Your task to perform on an android device: find snoozed emails in the gmail app Image 0: 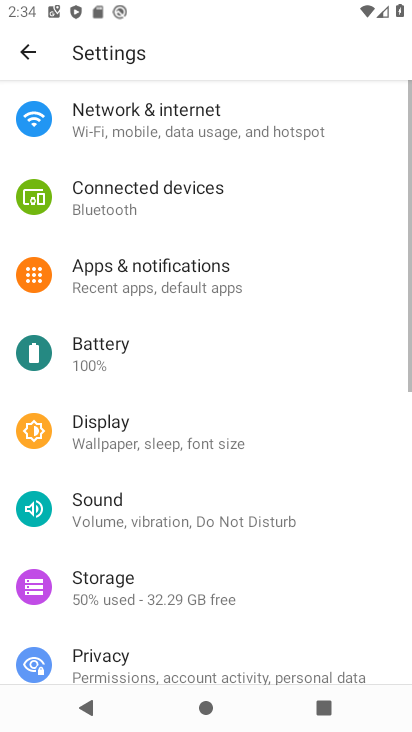
Step 0: press home button
Your task to perform on an android device: find snoozed emails in the gmail app Image 1: 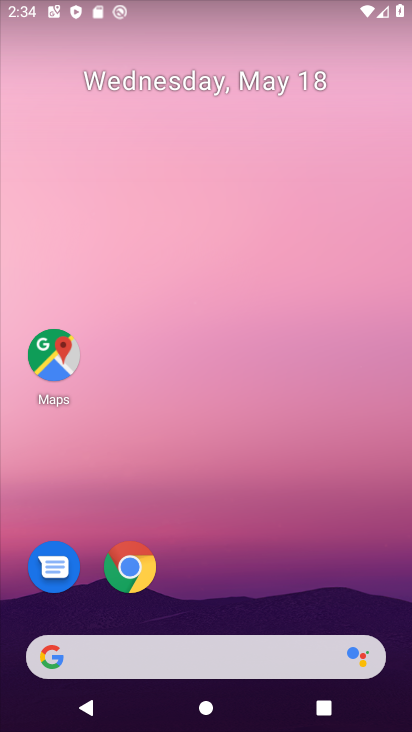
Step 1: drag from (217, 625) to (243, 201)
Your task to perform on an android device: find snoozed emails in the gmail app Image 2: 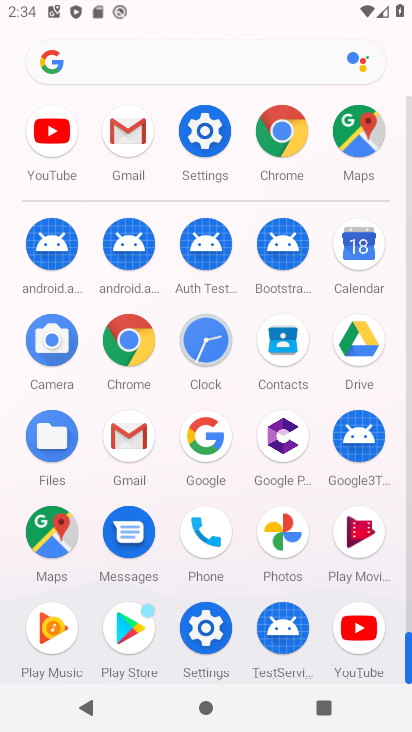
Step 2: click (129, 127)
Your task to perform on an android device: find snoozed emails in the gmail app Image 3: 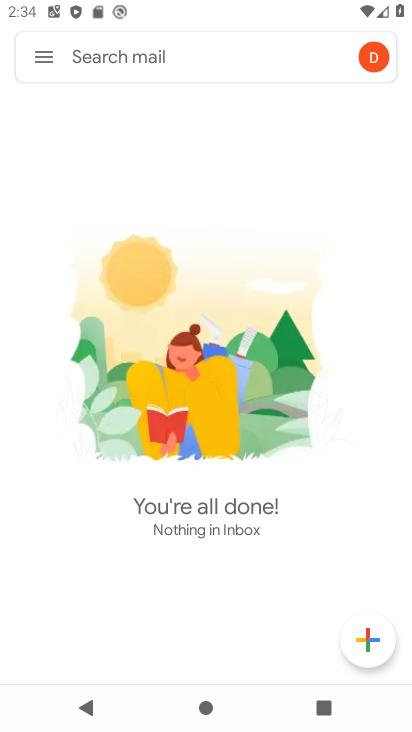
Step 3: click (40, 45)
Your task to perform on an android device: find snoozed emails in the gmail app Image 4: 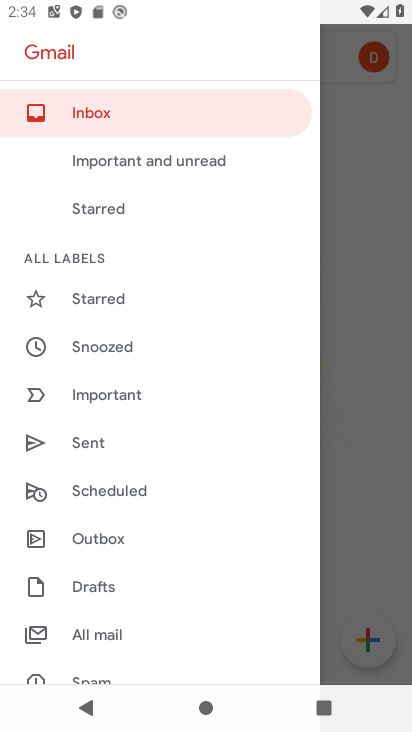
Step 4: drag from (137, 595) to (179, 161)
Your task to perform on an android device: find snoozed emails in the gmail app Image 5: 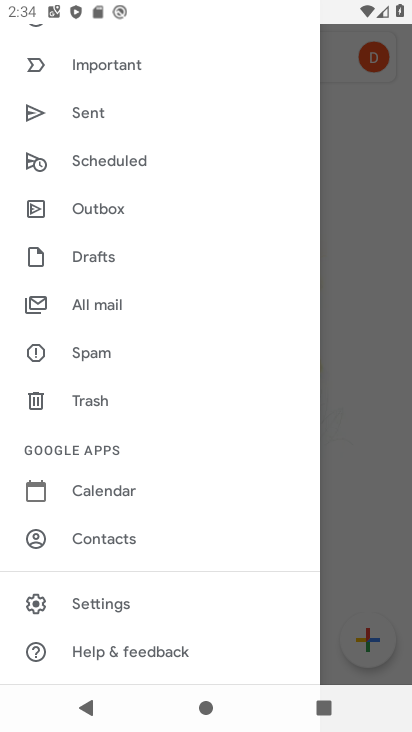
Step 5: drag from (119, 177) to (113, 463)
Your task to perform on an android device: find snoozed emails in the gmail app Image 6: 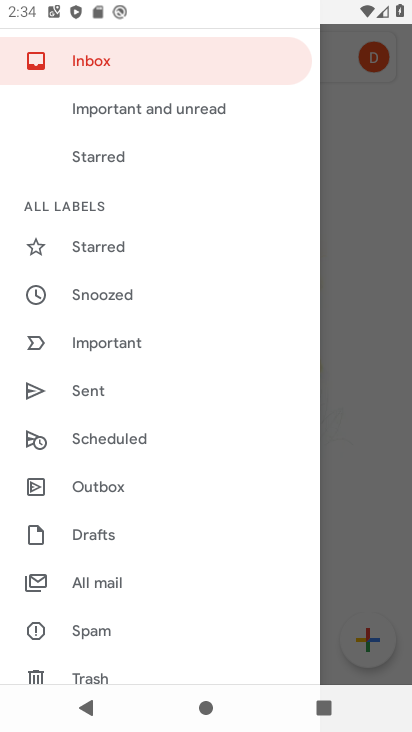
Step 6: click (130, 301)
Your task to perform on an android device: find snoozed emails in the gmail app Image 7: 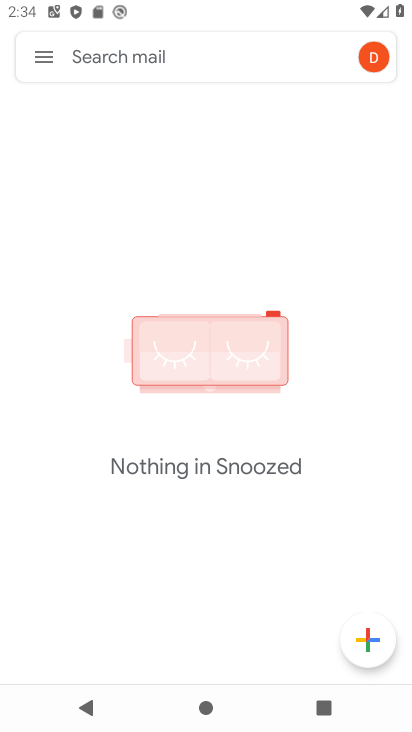
Step 7: task complete